Your task to perform on an android device: toggle improve location accuracy Image 0: 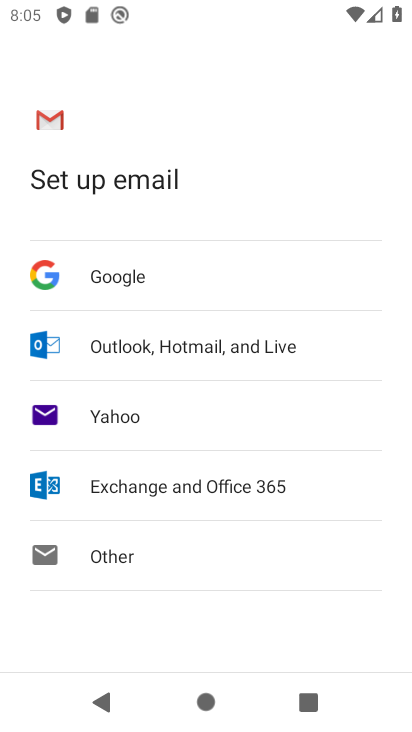
Step 0: press home button
Your task to perform on an android device: toggle improve location accuracy Image 1: 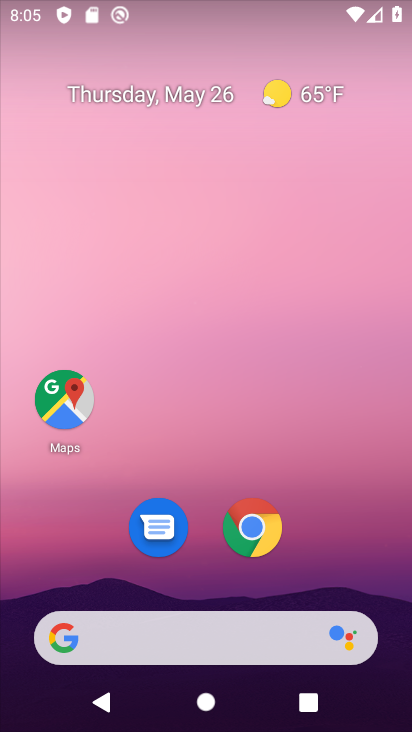
Step 1: drag from (340, 579) to (398, 148)
Your task to perform on an android device: toggle improve location accuracy Image 2: 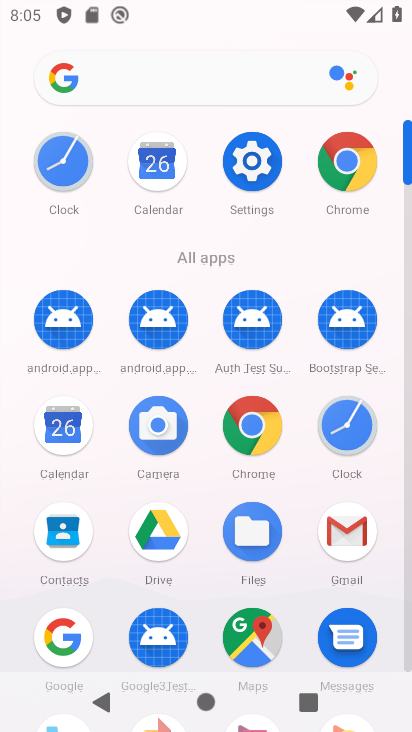
Step 2: click (254, 157)
Your task to perform on an android device: toggle improve location accuracy Image 3: 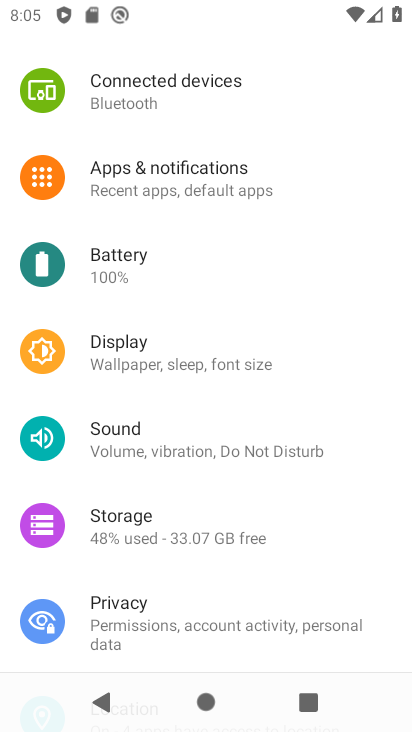
Step 3: drag from (230, 571) to (271, 260)
Your task to perform on an android device: toggle improve location accuracy Image 4: 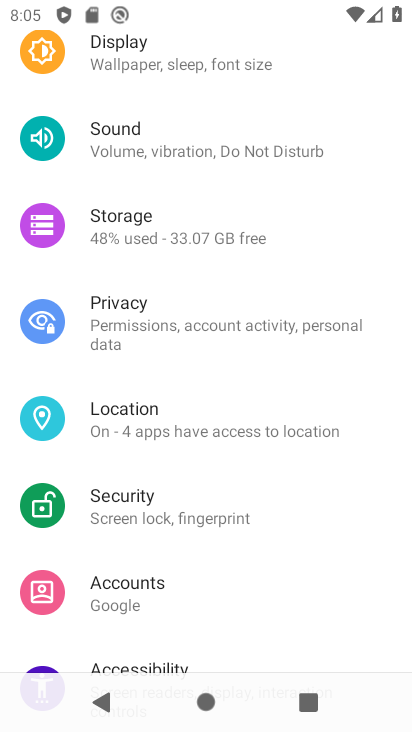
Step 4: click (144, 414)
Your task to perform on an android device: toggle improve location accuracy Image 5: 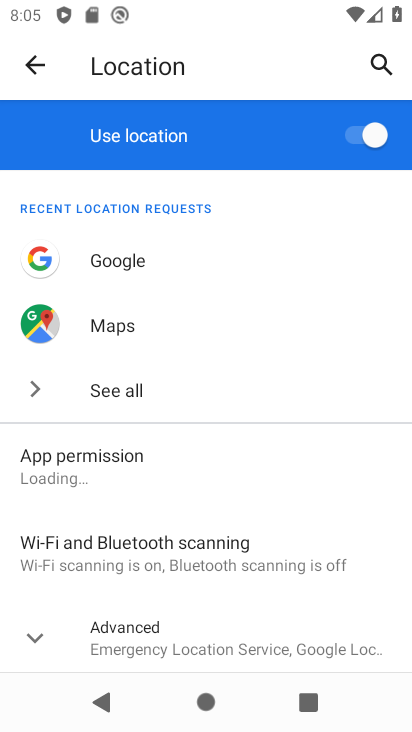
Step 5: drag from (195, 619) to (267, 242)
Your task to perform on an android device: toggle improve location accuracy Image 6: 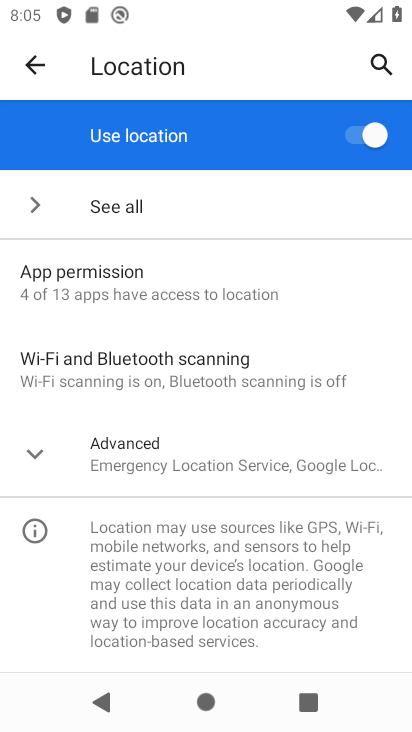
Step 6: click (176, 463)
Your task to perform on an android device: toggle improve location accuracy Image 7: 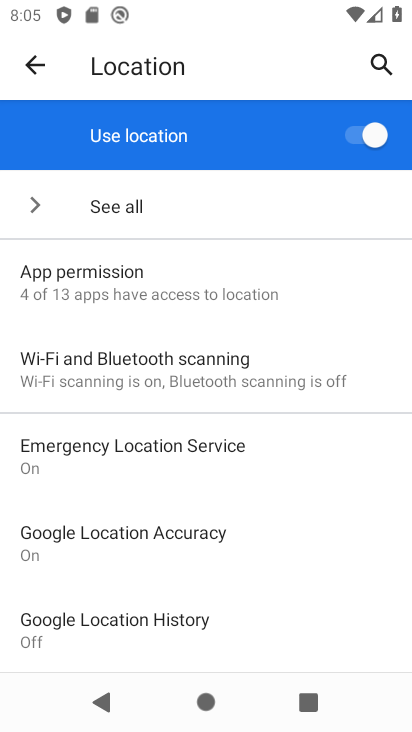
Step 7: click (153, 543)
Your task to perform on an android device: toggle improve location accuracy Image 8: 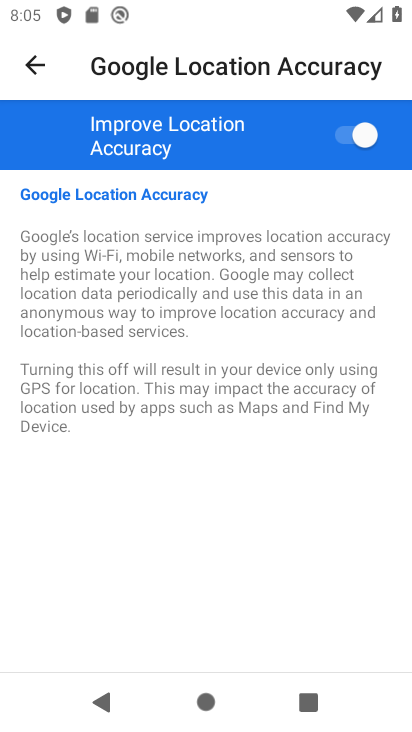
Step 8: click (350, 136)
Your task to perform on an android device: toggle improve location accuracy Image 9: 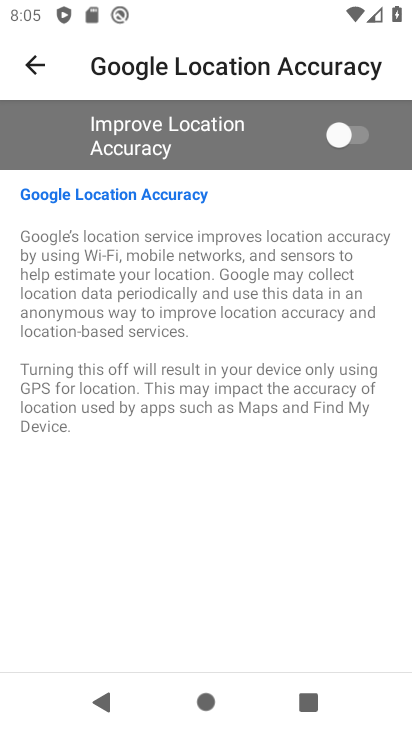
Step 9: task complete